Your task to perform on an android device: Is it going to rain tomorrow? Image 0: 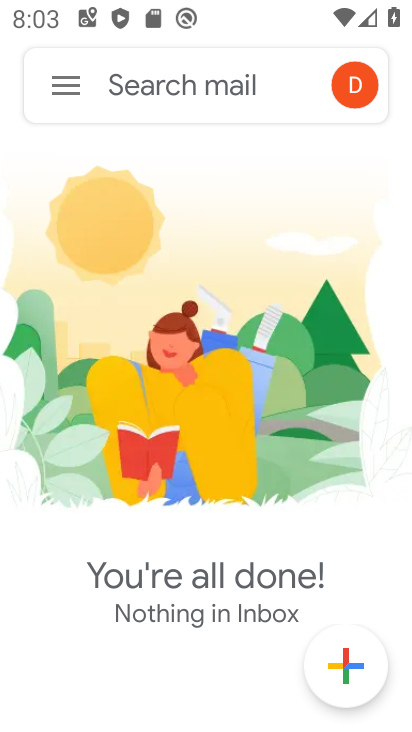
Step 0: press home button
Your task to perform on an android device: Is it going to rain tomorrow? Image 1: 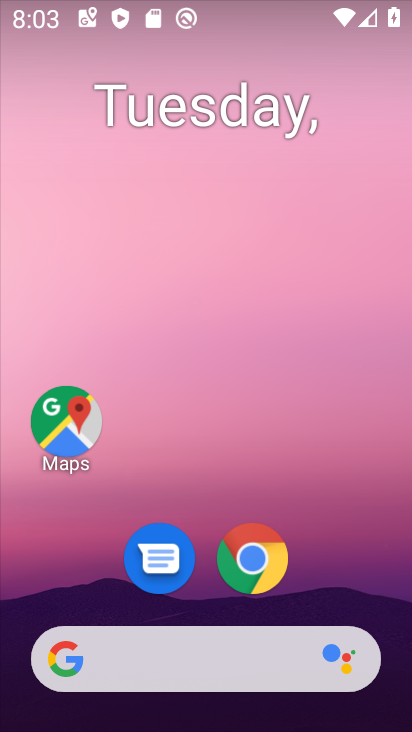
Step 1: drag from (216, 604) to (206, 0)
Your task to perform on an android device: Is it going to rain tomorrow? Image 2: 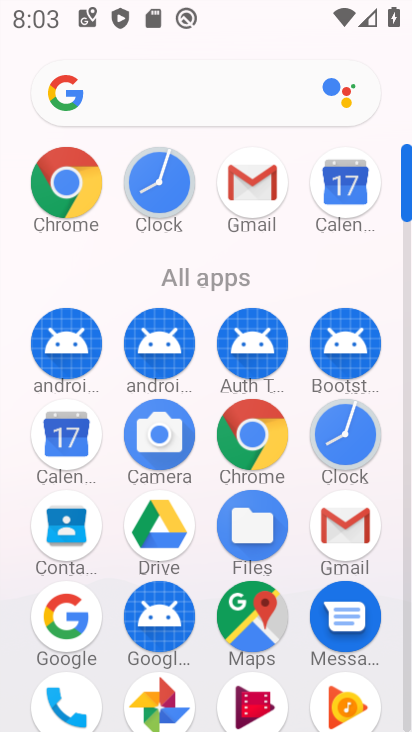
Step 2: click (71, 615)
Your task to perform on an android device: Is it going to rain tomorrow? Image 3: 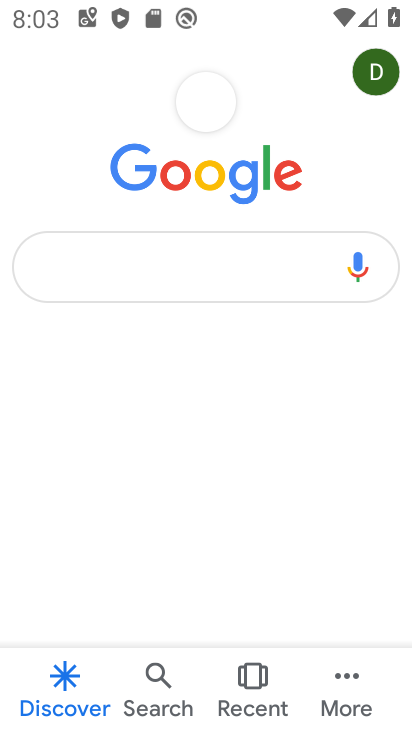
Step 3: click (120, 288)
Your task to perform on an android device: Is it going to rain tomorrow? Image 4: 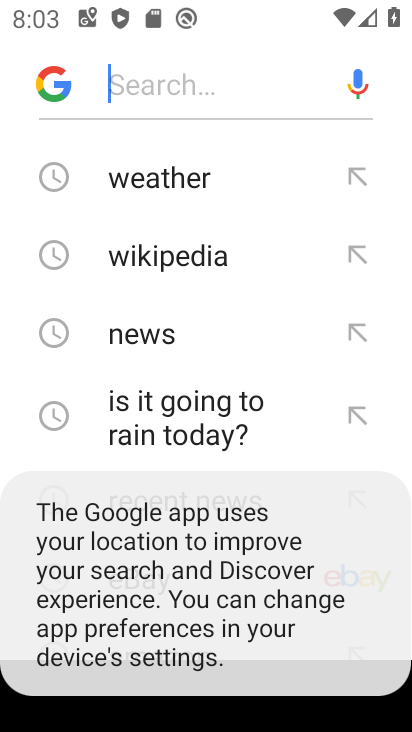
Step 4: click (123, 186)
Your task to perform on an android device: Is it going to rain tomorrow? Image 5: 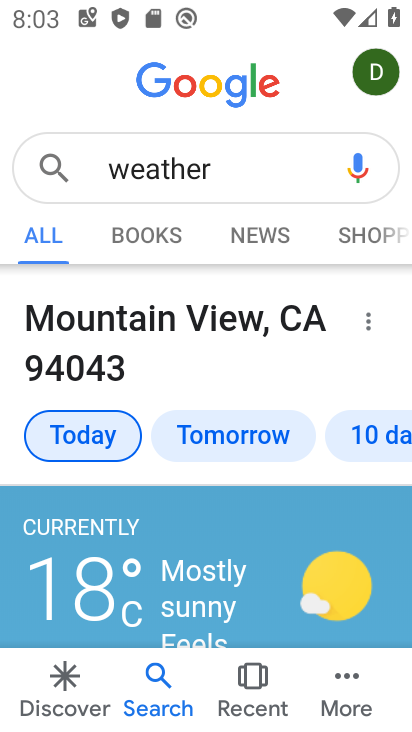
Step 5: click (227, 428)
Your task to perform on an android device: Is it going to rain tomorrow? Image 6: 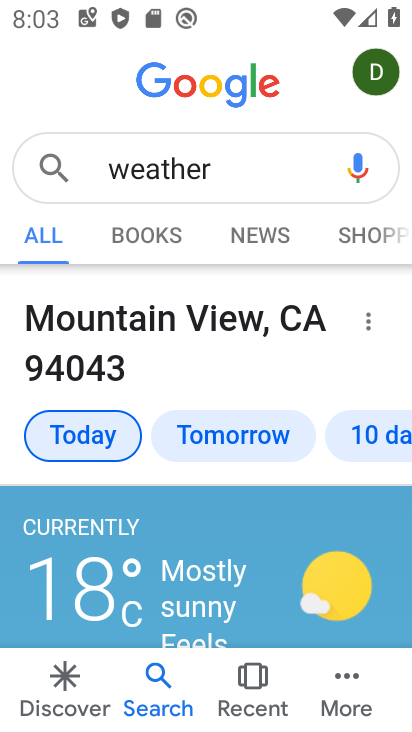
Step 6: click (225, 439)
Your task to perform on an android device: Is it going to rain tomorrow? Image 7: 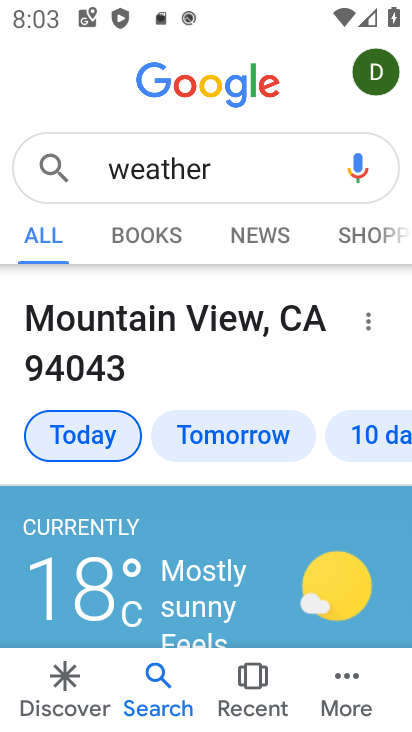
Step 7: click (273, 443)
Your task to perform on an android device: Is it going to rain tomorrow? Image 8: 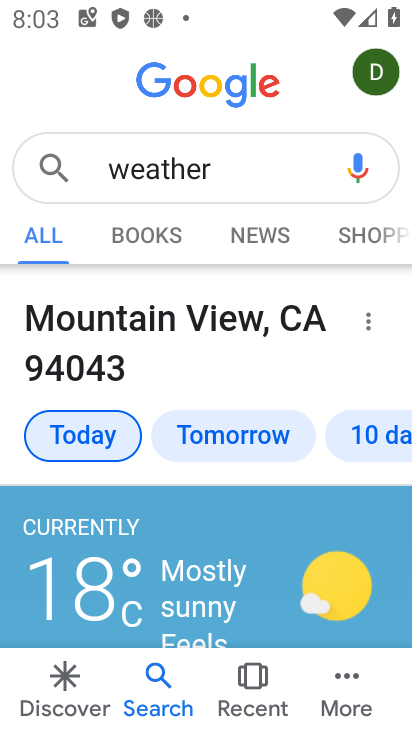
Step 8: click (263, 440)
Your task to perform on an android device: Is it going to rain tomorrow? Image 9: 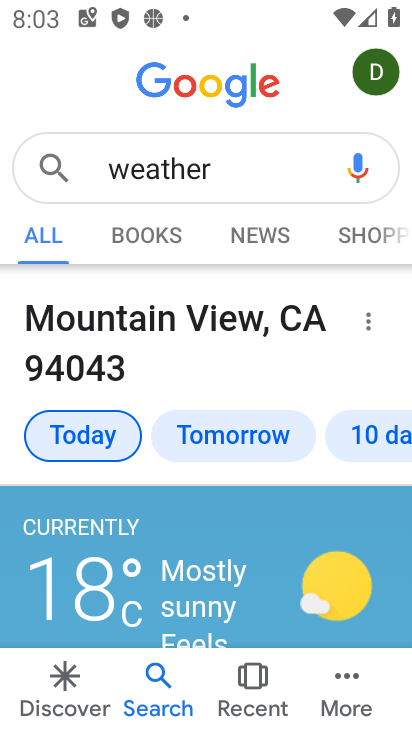
Step 9: click (257, 440)
Your task to perform on an android device: Is it going to rain tomorrow? Image 10: 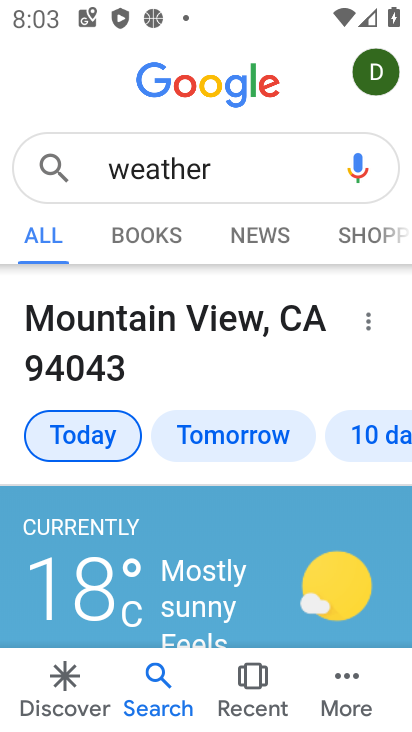
Step 10: task complete